Your task to perform on an android device: Open Youtube and go to the subscriptions tab Image 0: 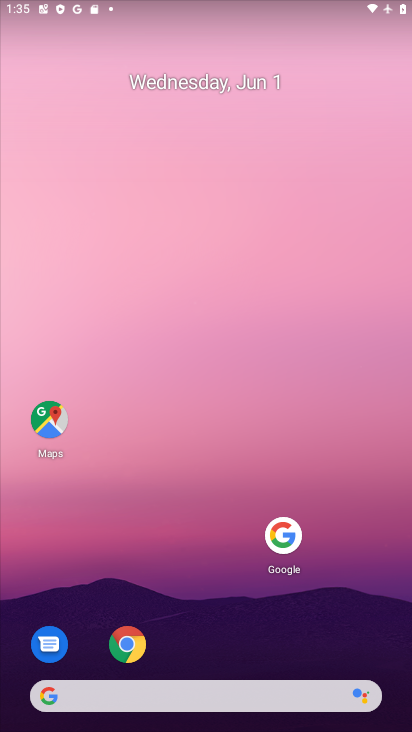
Step 0: press home button
Your task to perform on an android device: Open Youtube and go to the subscriptions tab Image 1: 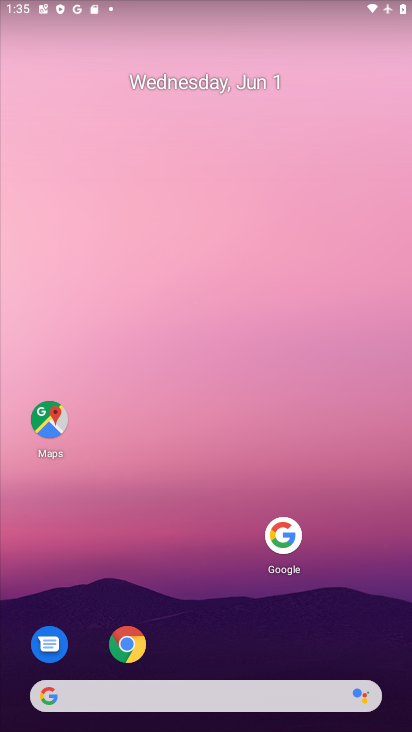
Step 1: drag from (176, 705) to (296, 180)
Your task to perform on an android device: Open Youtube and go to the subscriptions tab Image 2: 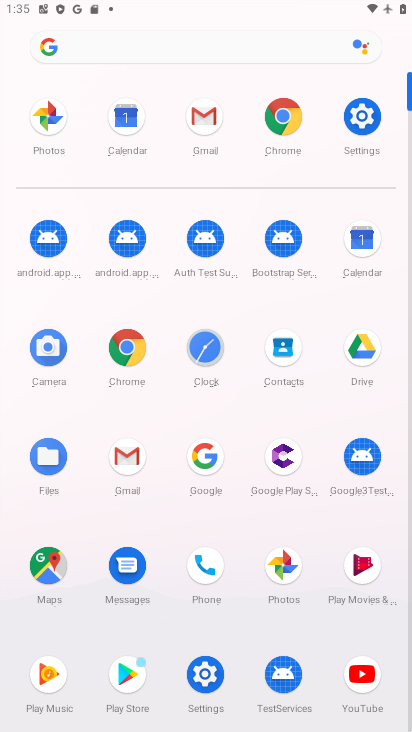
Step 2: click (356, 681)
Your task to perform on an android device: Open Youtube and go to the subscriptions tab Image 3: 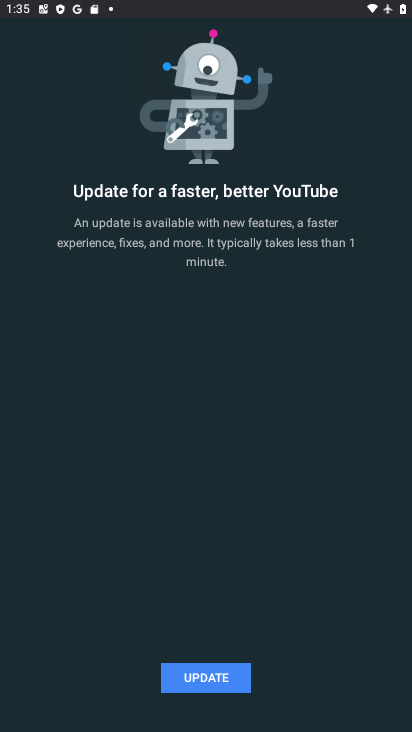
Step 3: click (204, 680)
Your task to perform on an android device: Open Youtube and go to the subscriptions tab Image 4: 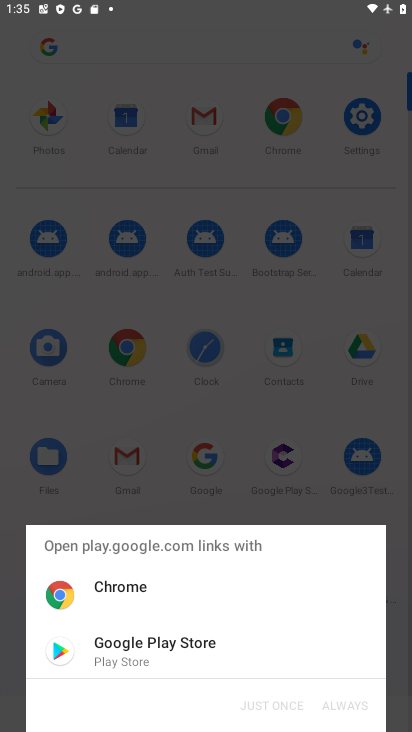
Step 4: click (147, 646)
Your task to perform on an android device: Open Youtube and go to the subscriptions tab Image 5: 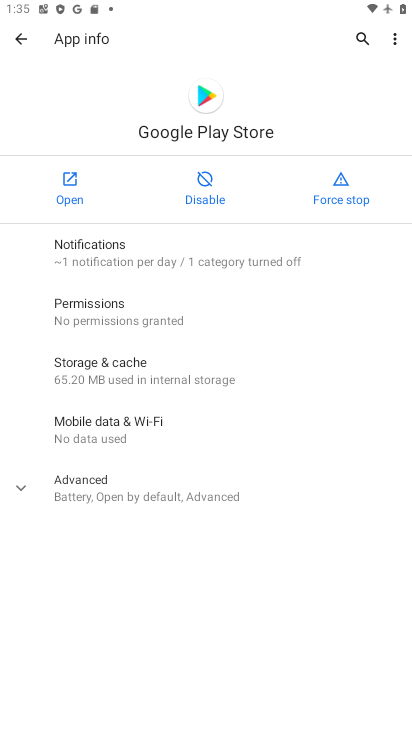
Step 5: click (18, 41)
Your task to perform on an android device: Open Youtube and go to the subscriptions tab Image 6: 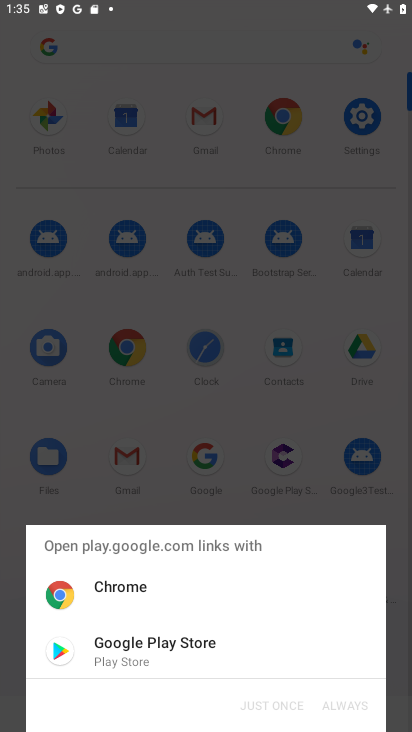
Step 6: click (123, 645)
Your task to perform on an android device: Open Youtube and go to the subscriptions tab Image 7: 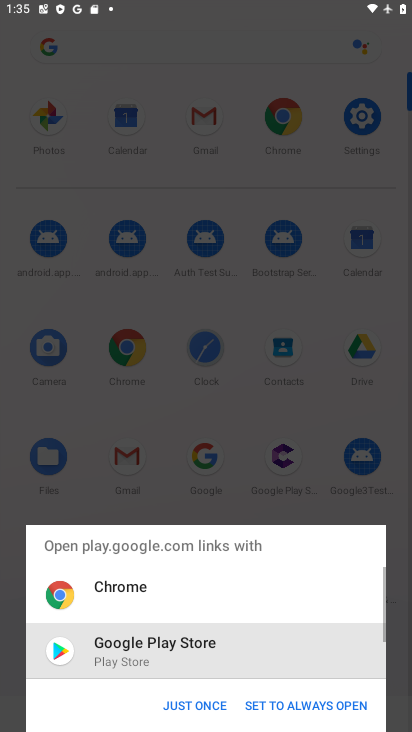
Step 7: click (189, 705)
Your task to perform on an android device: Open Youtube and go to the subscriptions tab Image 8: 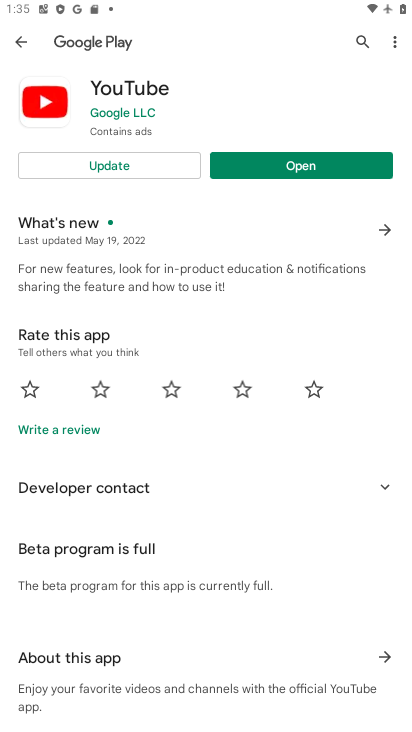
Step 8: click (164, 159)
Your task to perform on an android device: Open Youtube and go to the subscriptions tab Image 9: 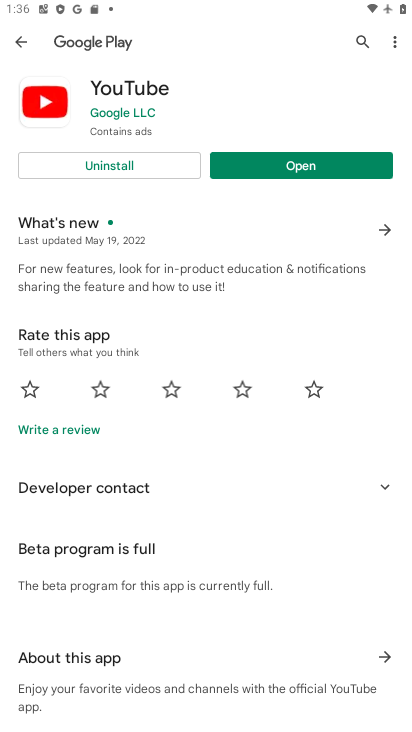
Step 9: click (292, 167)
Your task to perform on an android device: Open Youtube and go to the subscriptions tab Image 10: 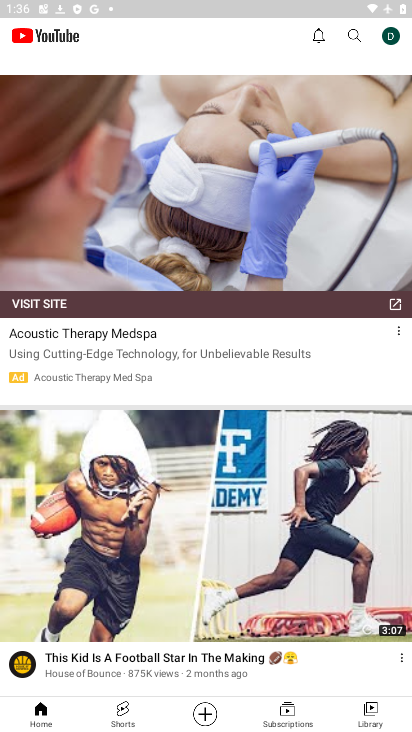
Step 10: click (287, 720)
Your task to perform on an android device: Open Youtube and go to the subscriptions tab Image 11: 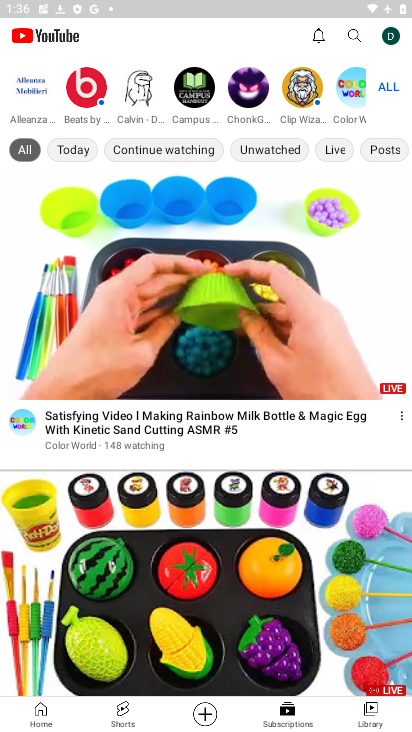
Step 11: task complete